Your task to perform on an android device: make emails show in primary in the gmail app Image 0: 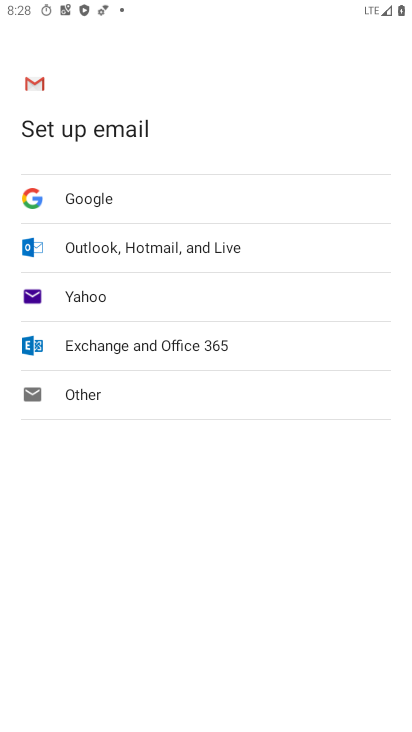
Step 0: press home button
Your task to perform on an android device: make emails show in primary in the gmail app Image 1: 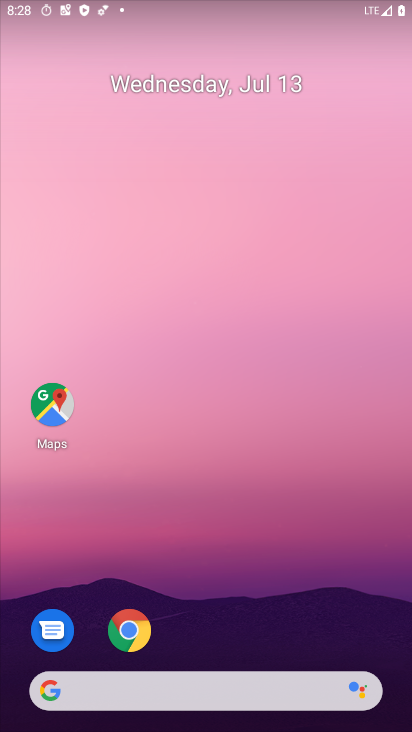
Step 1: drag from (354, 630) to (368, 111)
Your task to perform on an android device: make emails show in primary in the gmail app Image 2: 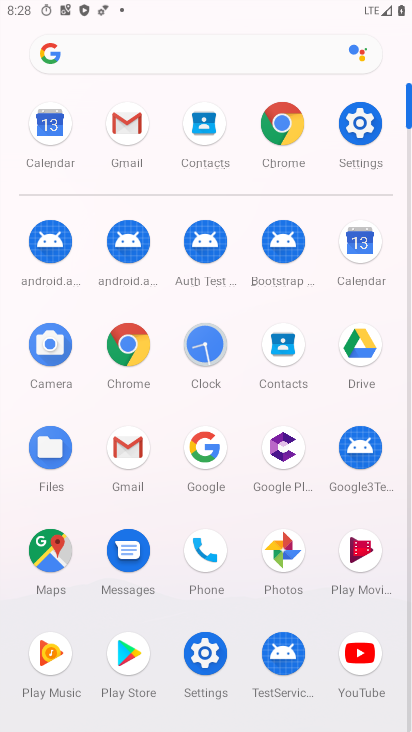
Step 2: click (120, 447)
Your task to perform on an android device: make emails show in primary in the gmail app Image 3: 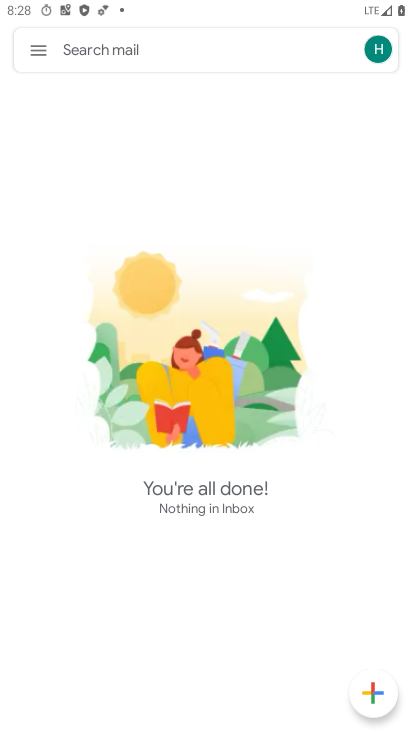
Step 3: click (38, 47)
Your task to perform on an android device: make emails show in primary in the gmail app Image 4: 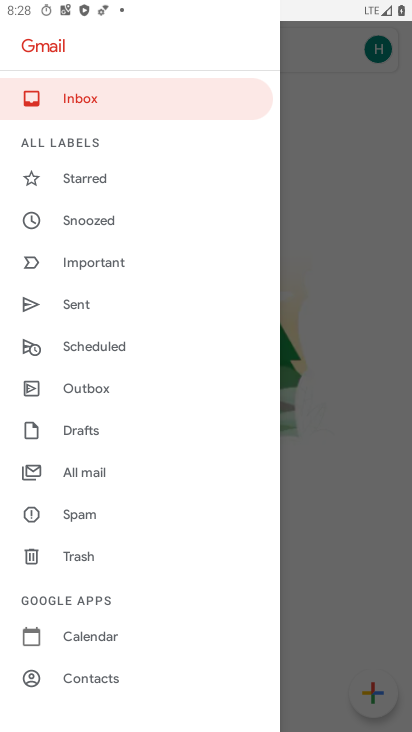
Step 4: drag from (188, 437) to (210, 317)
Your task to perform on an android device: make emails show in primary in the gmail app Image 5: 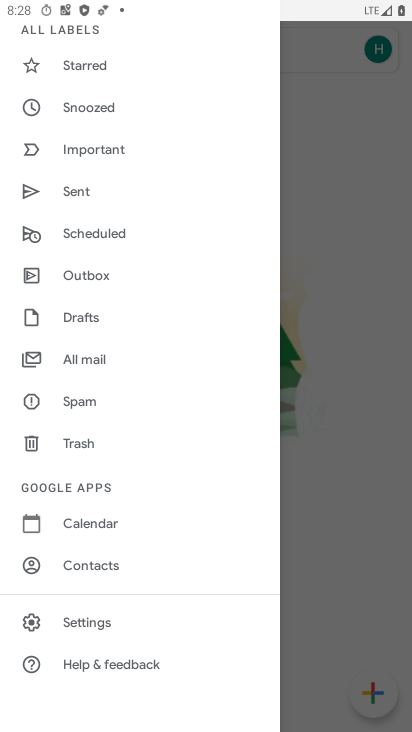
Step 5: drag from (193, 525) to (196, 363)
Your task to perform on an android device: make emails show in primary in the gmail app Image 6: 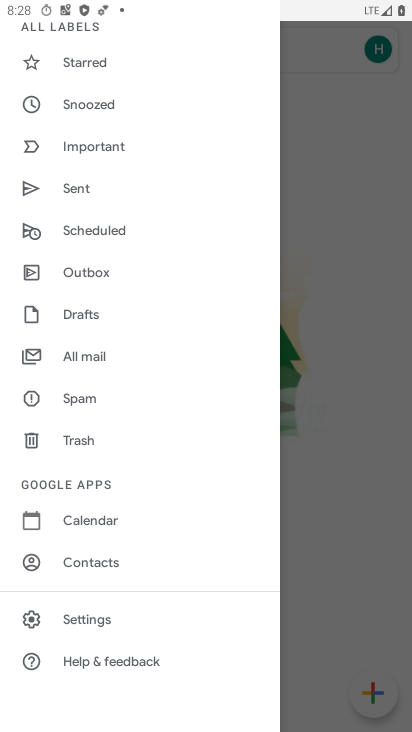
Step 6: click (157, 621)
Your task to perform on an android device: make emails show in primary in the gmail app Image 7: 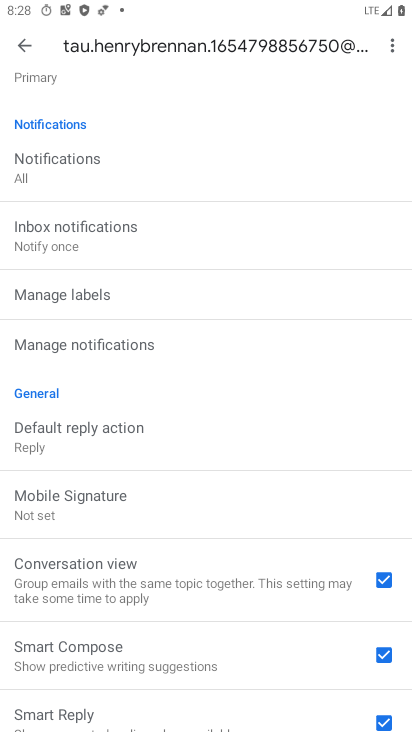
Step 7: task complete